Your task to perform on an android device: clear all cookies in the chrome app Image 0: 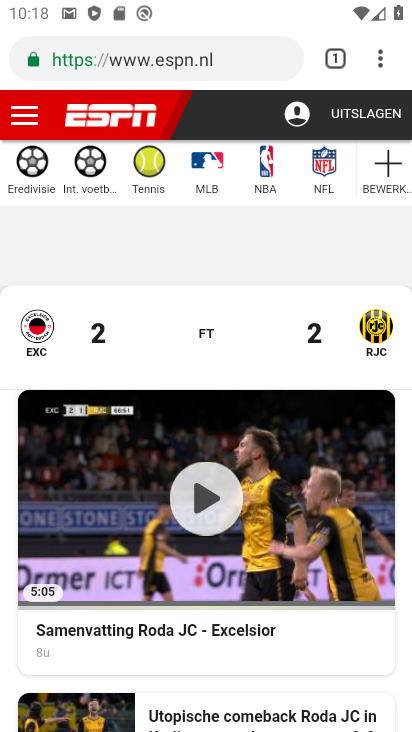
Step 0: drag from (378, 58) to (200, 395)
Your task to perform on an android device: clear all cookies in the chrome app Image 1: 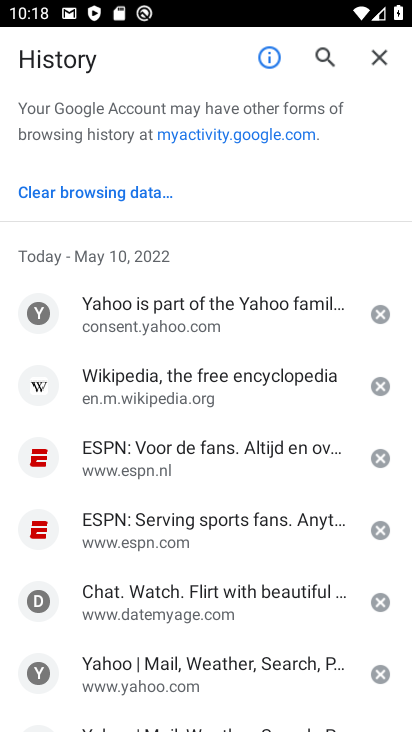
Step 1: click (143, 187)
Your task to perform on an android device: clear all cookies in the chrome app Image 2: 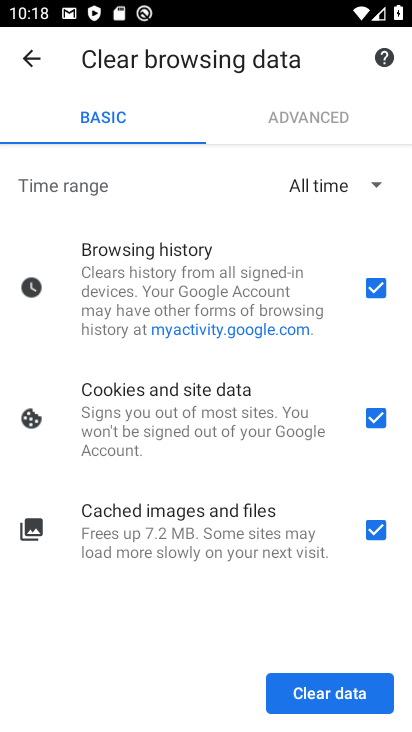
Step 2: click (373, 287)
Your task to perform on an android device: clear all cookies in the chrome app Image 3: 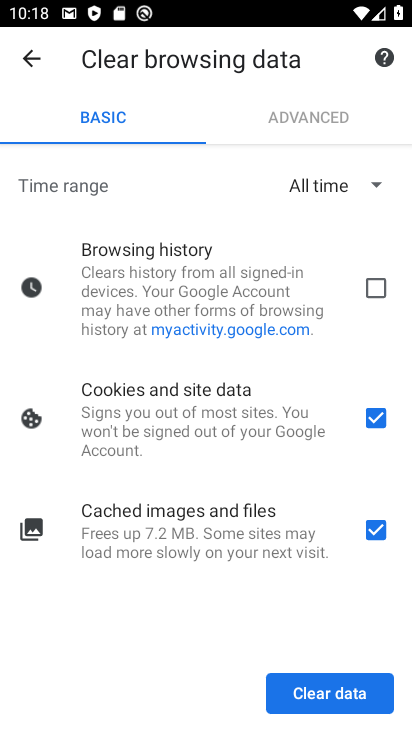
Step 3: click (347, 685)
Your task to perform on an android device: clear all cookies in the chrome app Image 4: 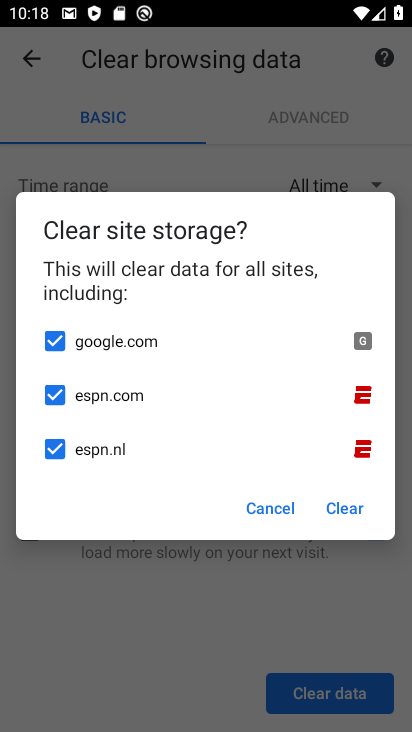
Step 4: click (332, 504)
Your task to perform on an android device: clear all cookies in the chrome app Image 5: 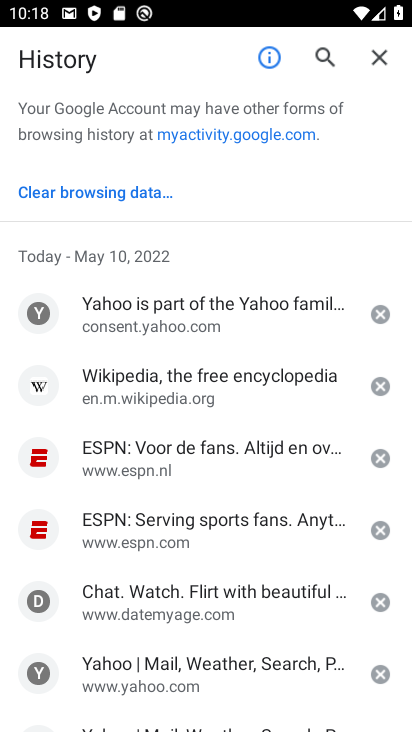
Step 5: task complete